Your task to perform on an android device: Open notification settings Image 0: 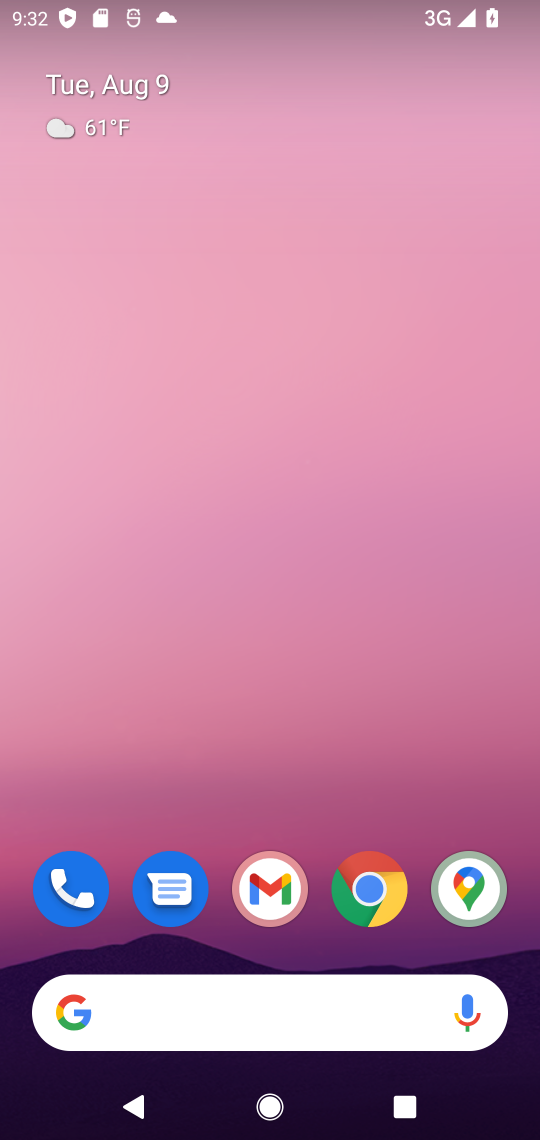
Step 0: drag from (376, 1009) to (302, 50)
Your task to perform on an android device: Open notification settings Image 1: 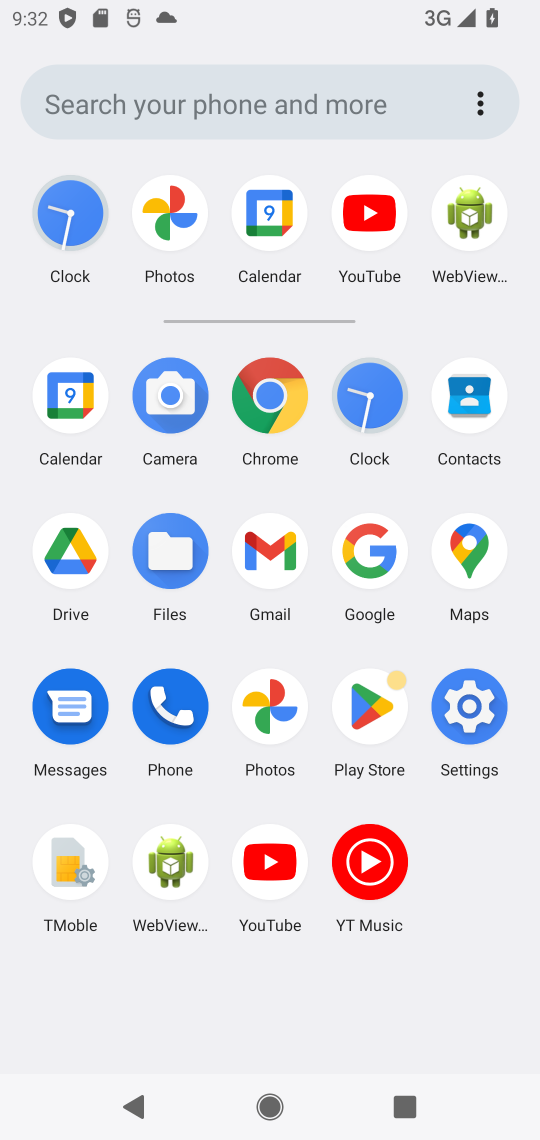
Step 1: click (468, 710)
Your task to perform on an android device: Open notification settings Image 2: 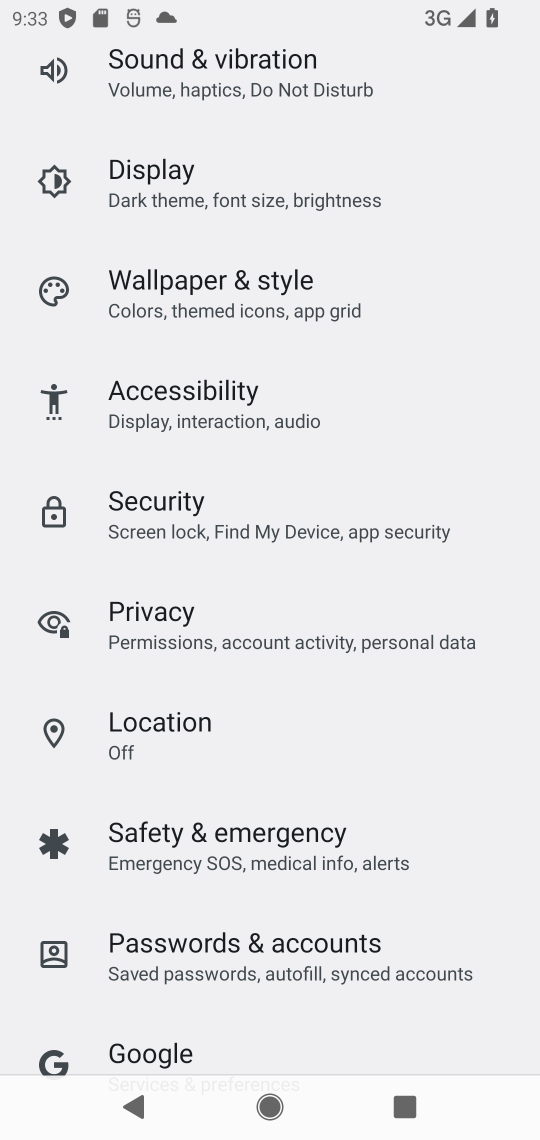
Step 2: drag from (59, 374) to (204, 1123)
Your task to perform on an android device: Open notification settings Image 3: 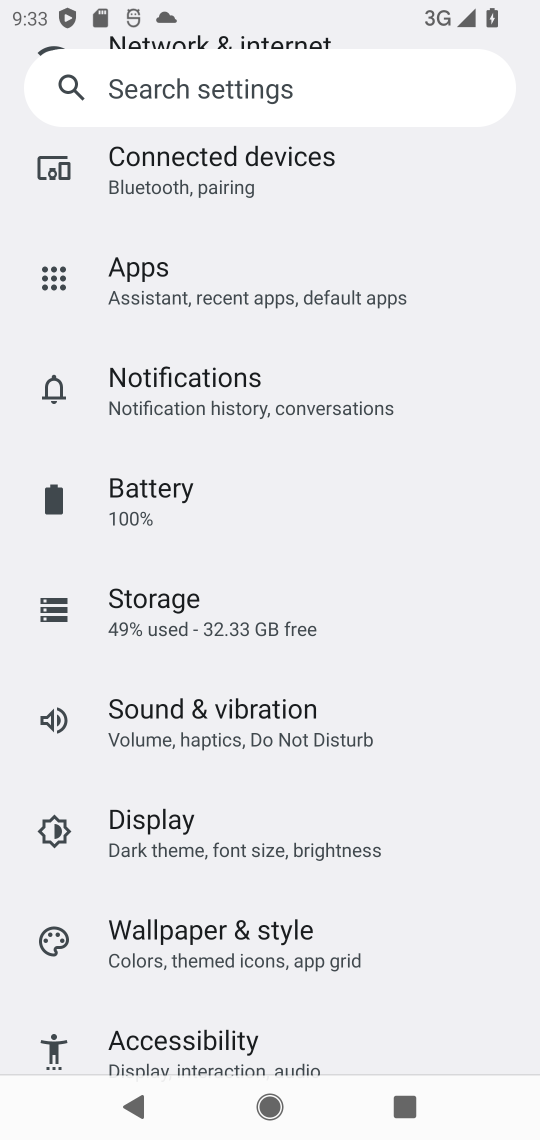
Step 3: drag from (262, 406) to (215, 1082)
Your task to perform on an android device: Open notification settings Image 4: 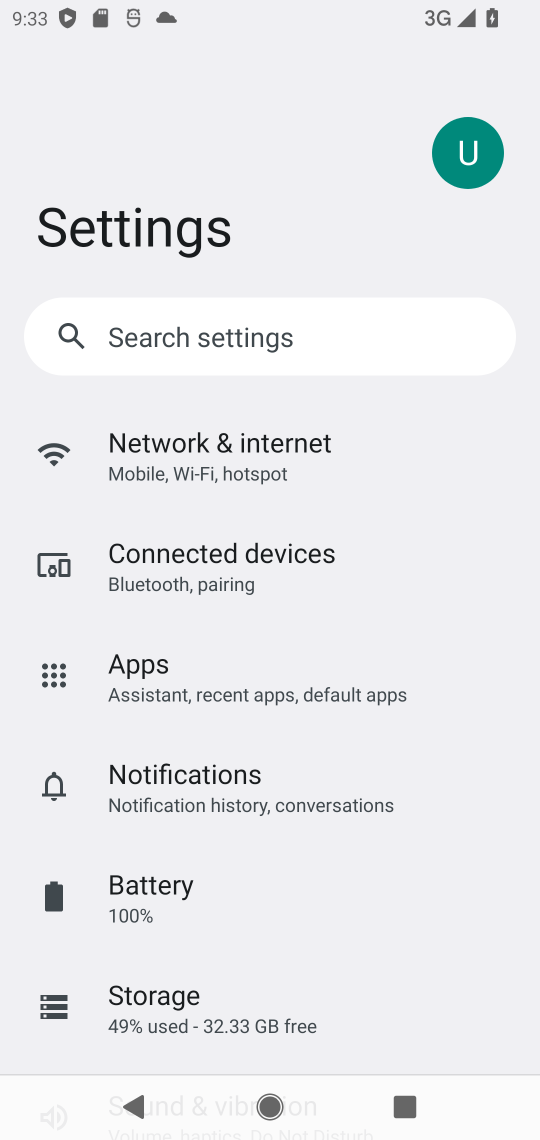
Step 4: click (168, 808)
Your task to perform on an android device: Open notification settings Image 5: 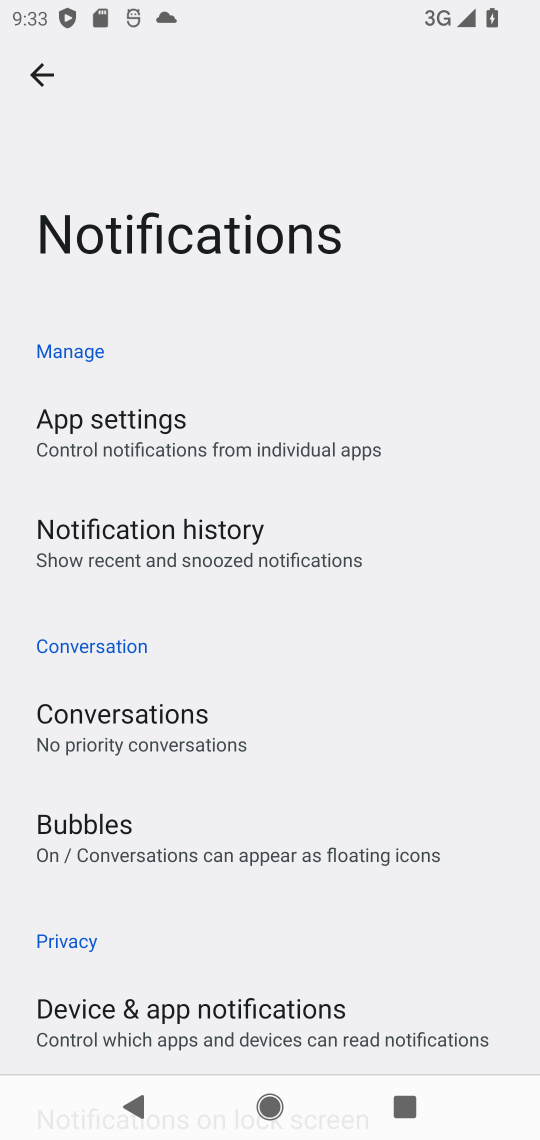
Step 5: task complete